Your task to perform on an android device: see sites visited before in the chrome app Image 0: 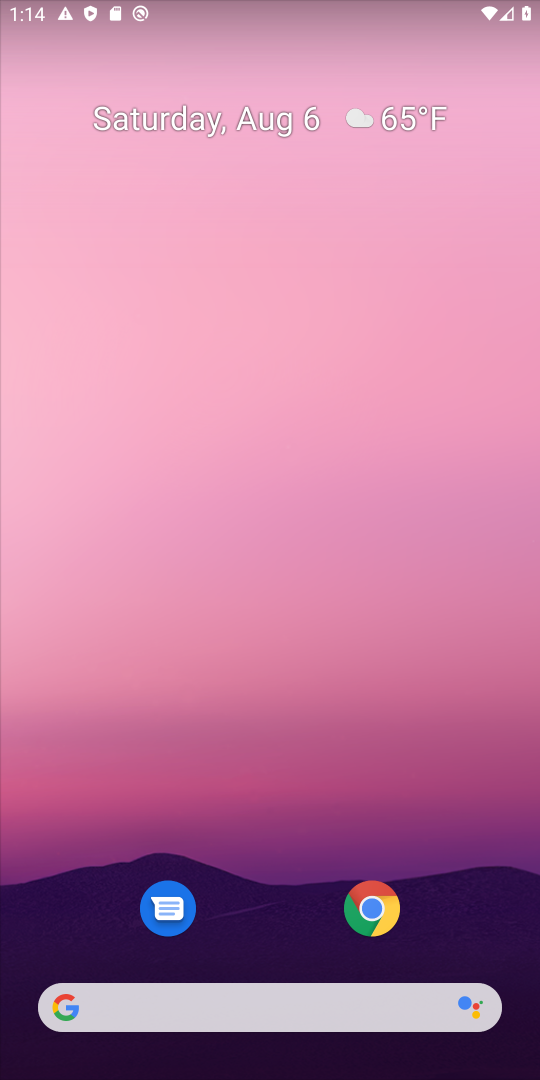
Step 0: click (378, 903)
Your task to perform on an android device: see sites visited before in the chrome app Image 1: 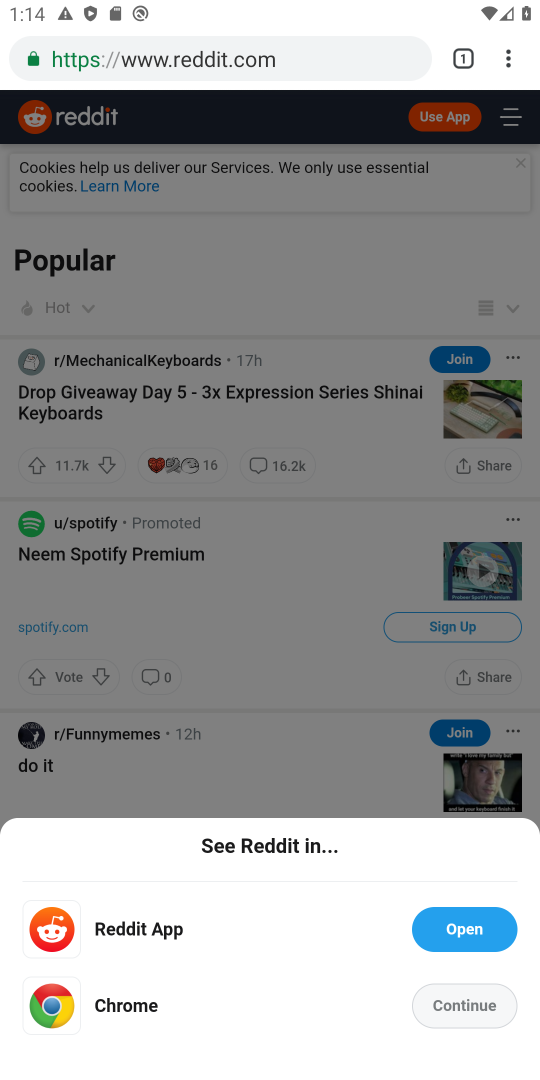
Step 1: click (510, 52)
Your task to perform on an android device: see sites visited before in the chrome app Image 2: 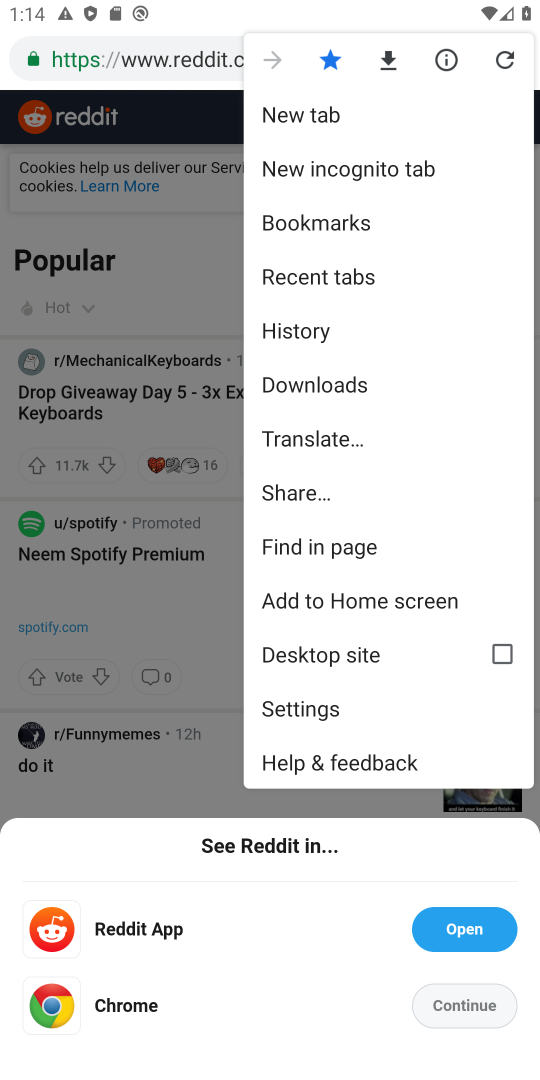
Step 2: click (308, 334)
Your task to perform on an android device: see sites visited before in the chrome app Image 3: 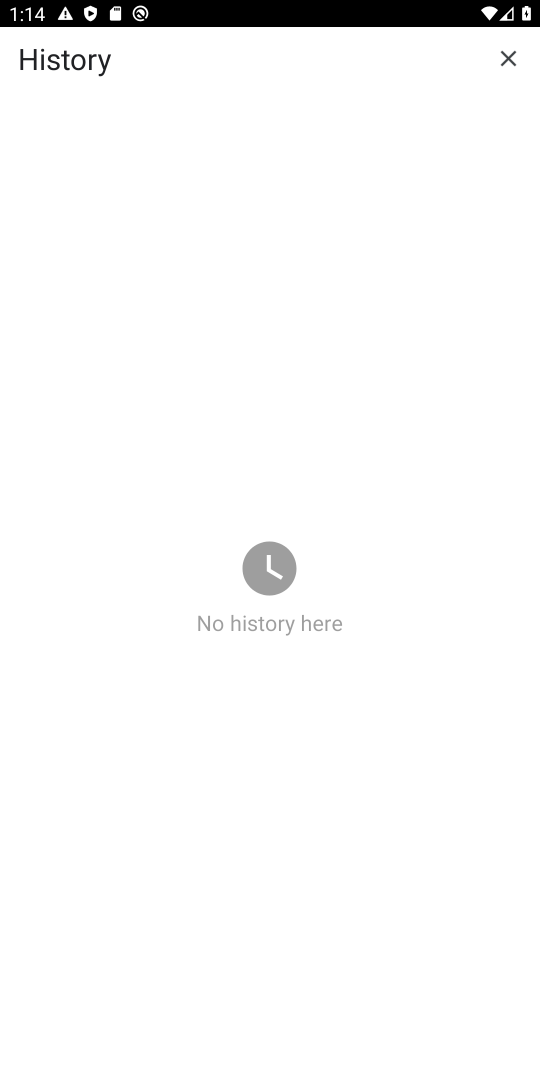
Step 3: task complete